Your task to perform on an android device: Open privacy settings Image 0: 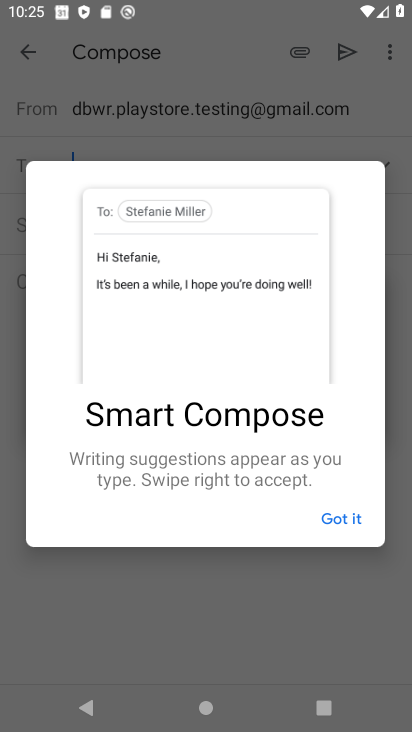
Step 0: press home button
Your task to perform on an android device: Open privacy settings Image 1: 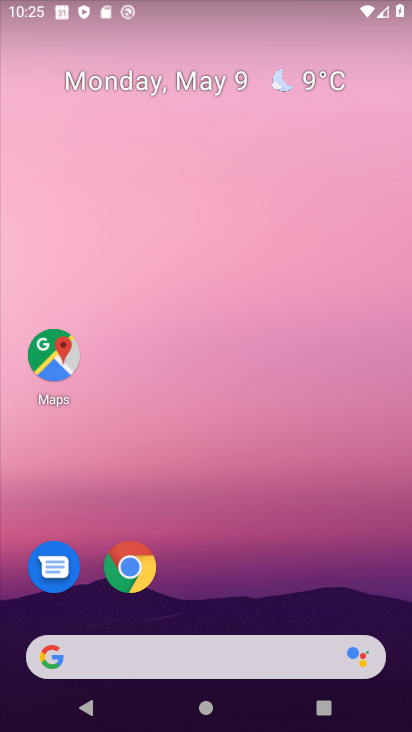
Step 1: drag from (211, 618) to (242, 85)
Your task to perform on an android device: Open privacy settings Image 2: 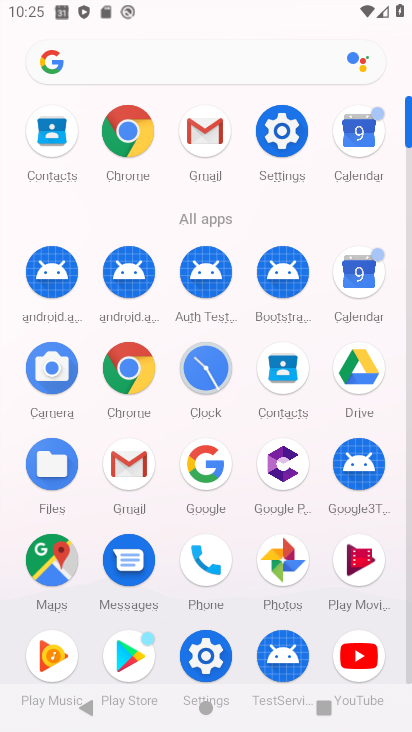
Step 2: click (280, 122)
Your task to perform on an android device: Open privacy settings Image 3: 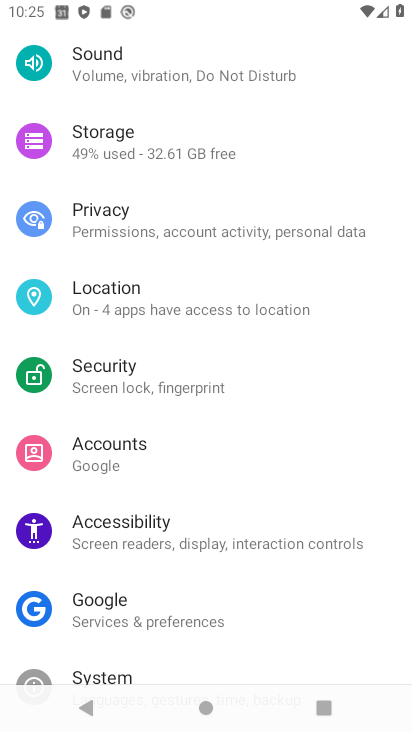
Step 3: click (144, 210)
Your task to perform on an android device: Open privacy settings Image 4: 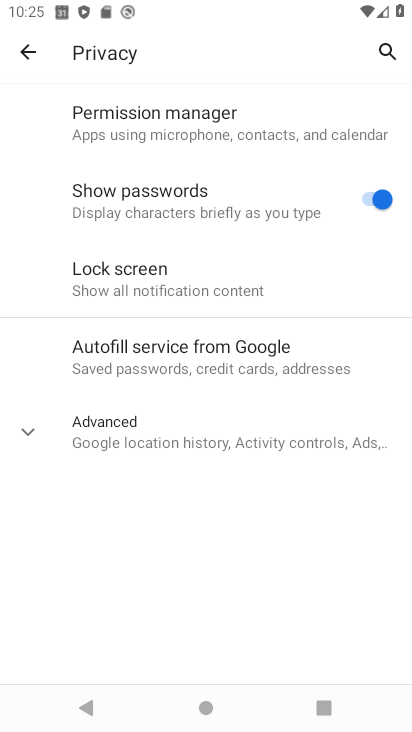
Step 4: click (39, 426)
Your task to perform on an android device: Open privacy settings Image 5: 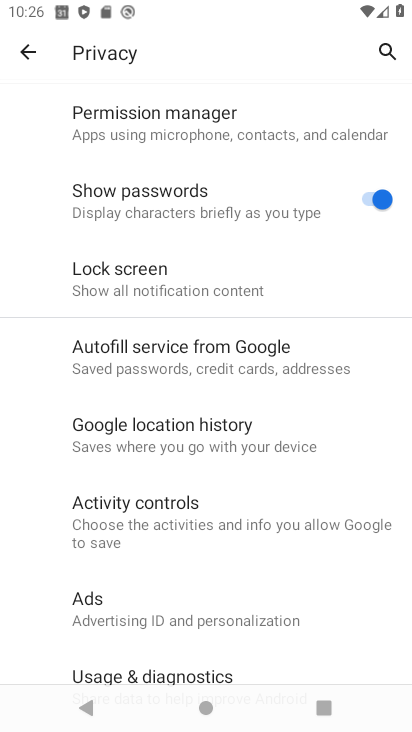
Step 5: task complete